Your task to perform on an android device: Search for sushi restaurants on Maps Image 0: 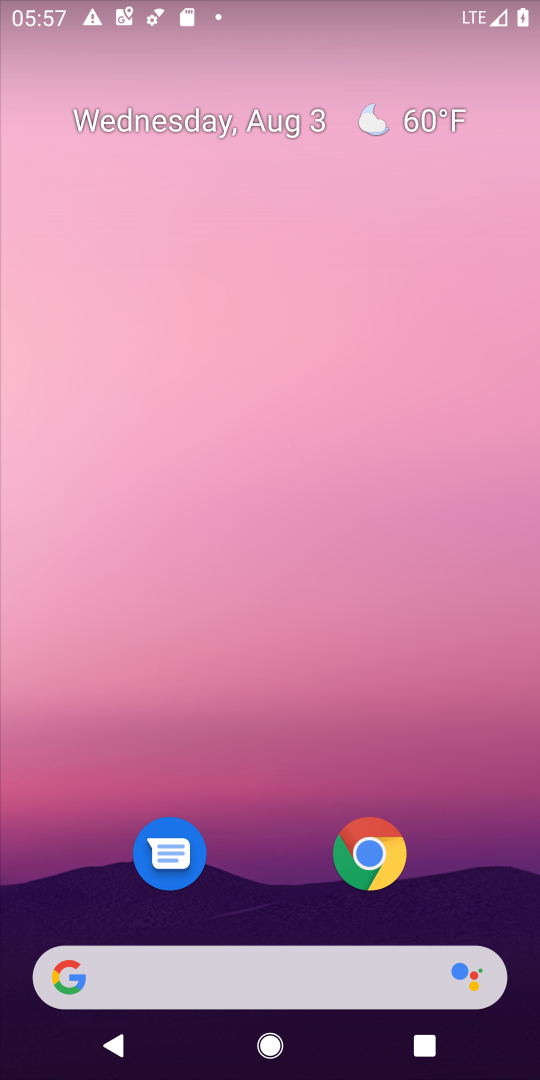
Step 0: drag from (278, 928) to (270, 60)
Your task to perform on an android device: Search for sushi restaurants on Maps Image 1: 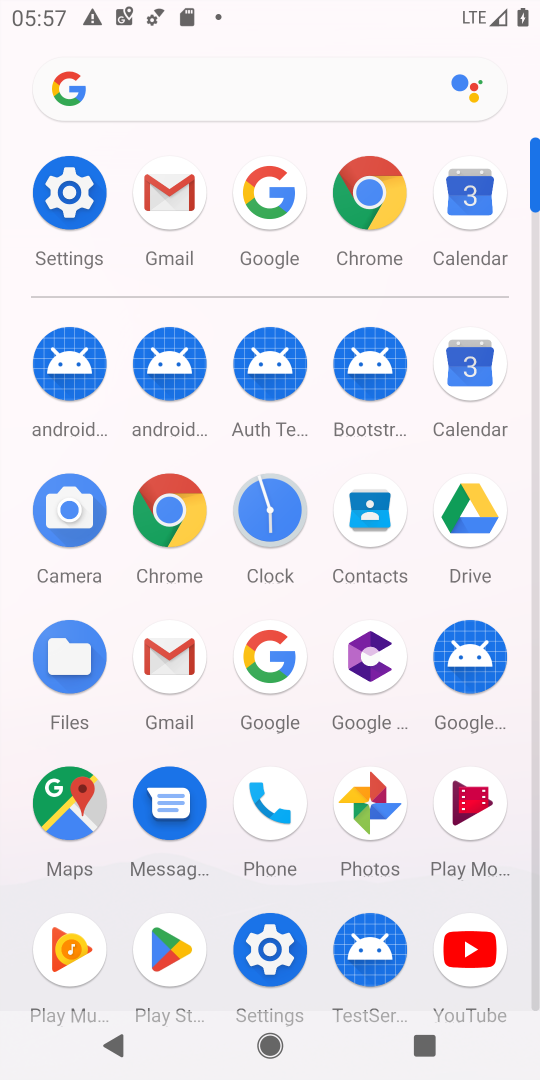
Step 1: click (57, 804)
Your task to perform on an android device: Search for sushi restaurants on Maps Image 2: 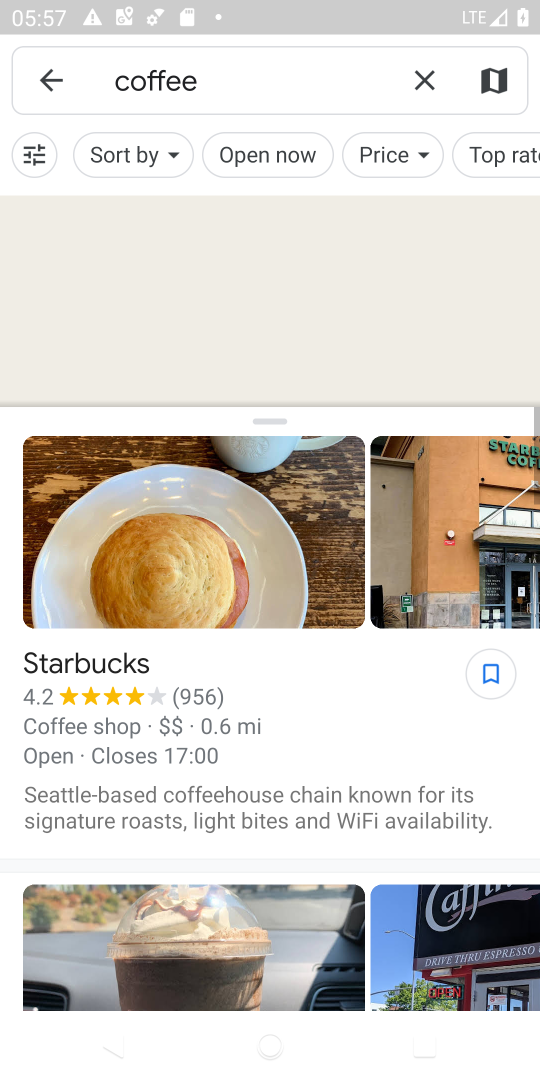
Step 2: click (420, 73)
Your task to perform on an android device: Search for sushi restaurants on Maps Image 3: 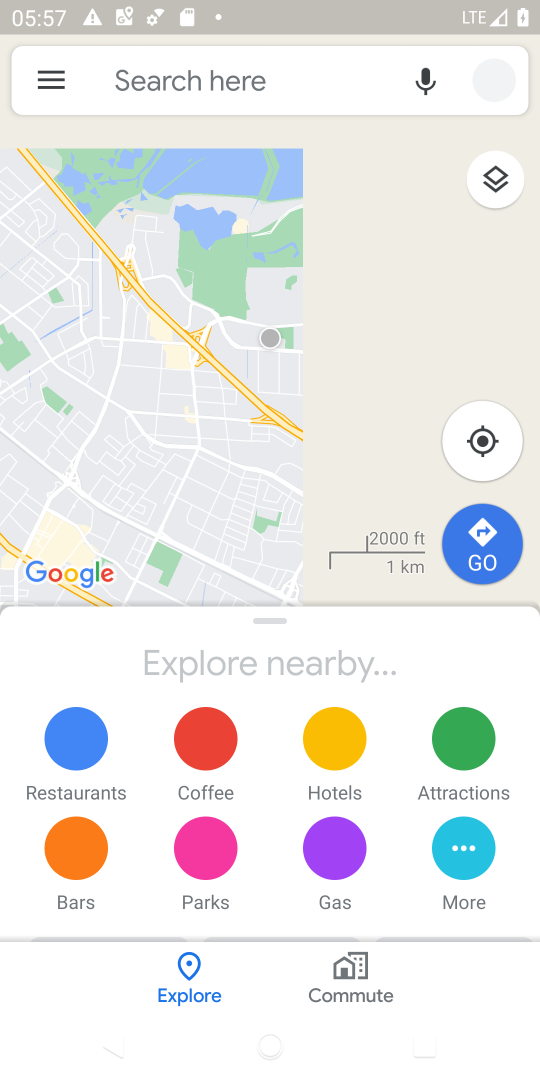
Step 3: click (293, 79)
Your task to perform on an android device: Search for sushi restaurants on Maps Image 4: 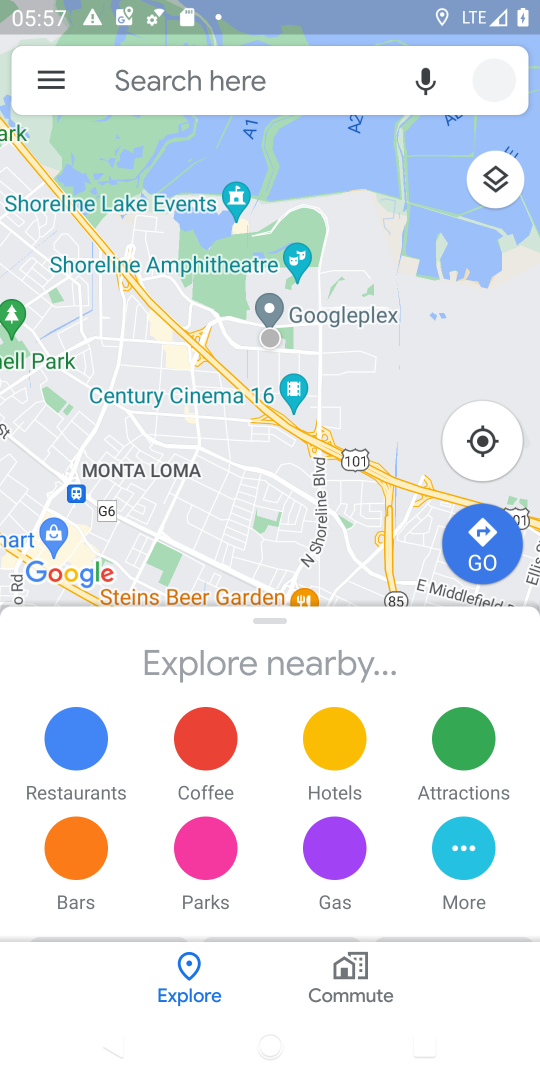
Step 4: click (182, 70)
Your task to perform on an android device: Search for sushi restaurants on Maps Image 5: 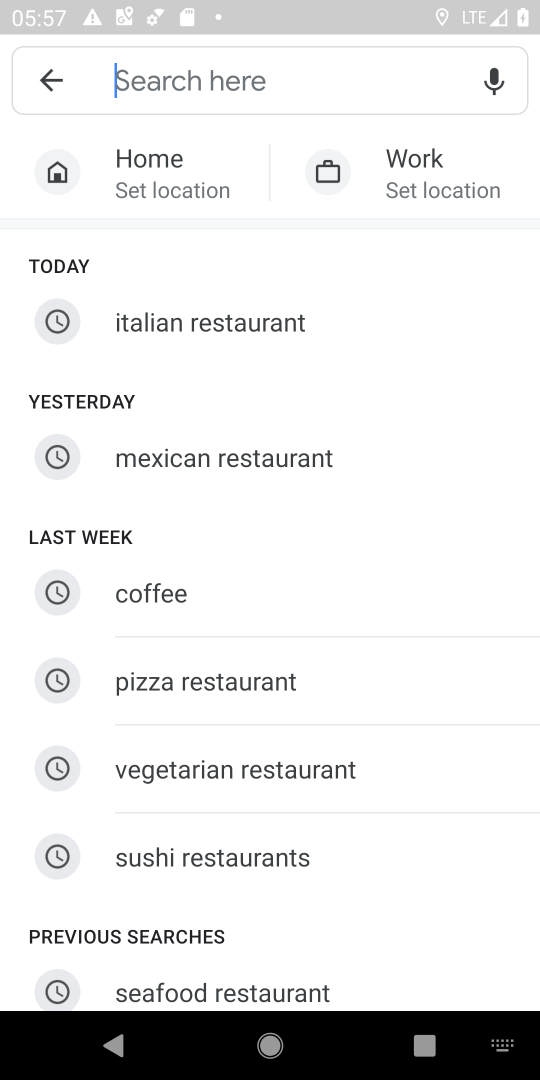
Step 5: type "Sushi restaurants"
Your task to perform on an android device: Search for sushi restaurants on Maps Image 6: 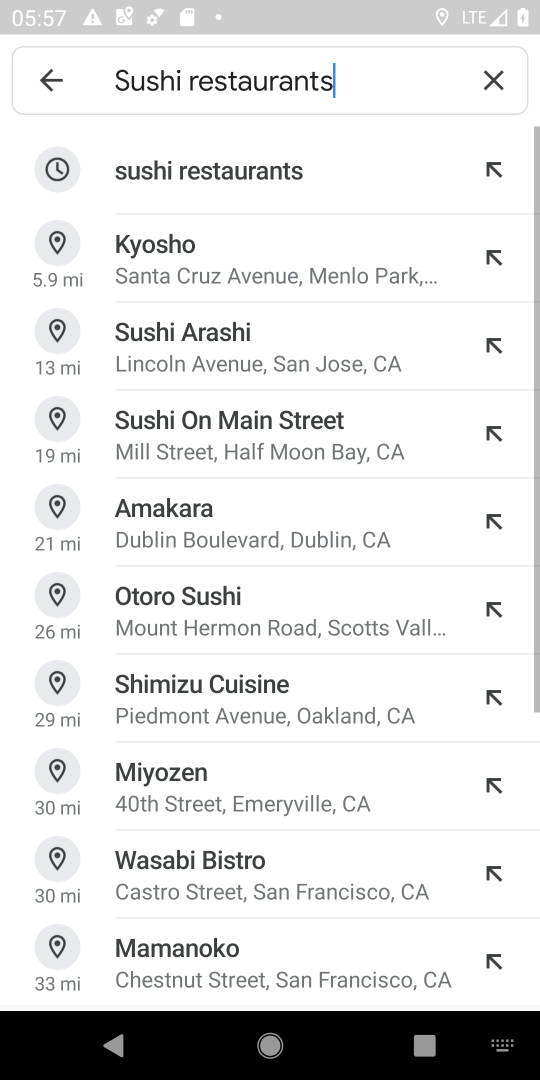
Step 6: click (211, 167)
Your task to perform on an android device: Search for sushi restaurants on Maps Image 7: 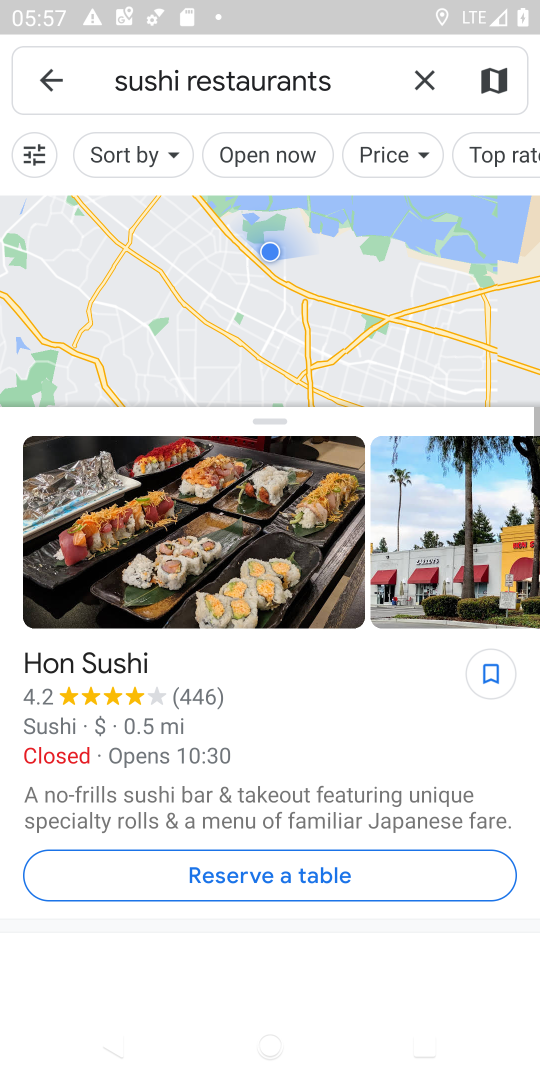
Step 7: task complete